Your task to perform on an android device: Search for the best way to make a resume. Image 0: 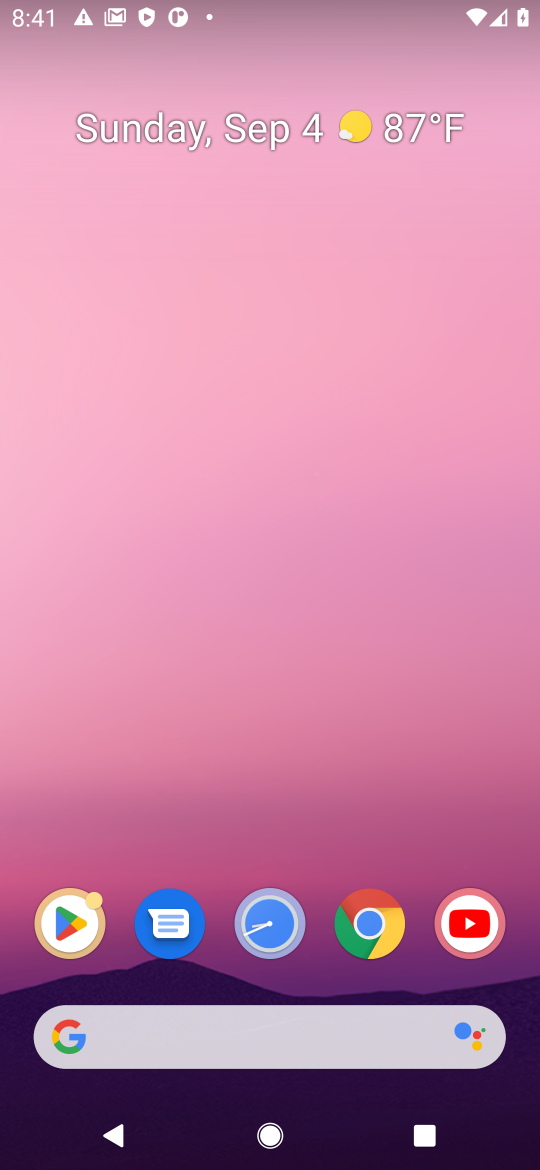
Step 0: press home button
Your task to perform on an android device: Search for the best way to make a resume. Image 1: 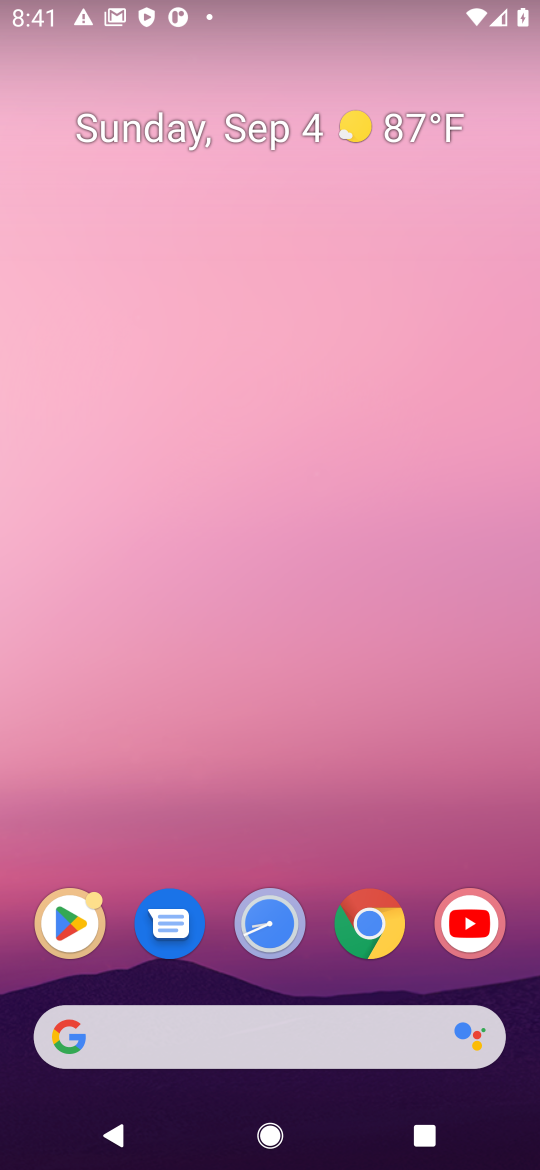
Step 1: click (388, 1025)
Your task to perform on an android device: Search for the best way to make a resume. Image 2: 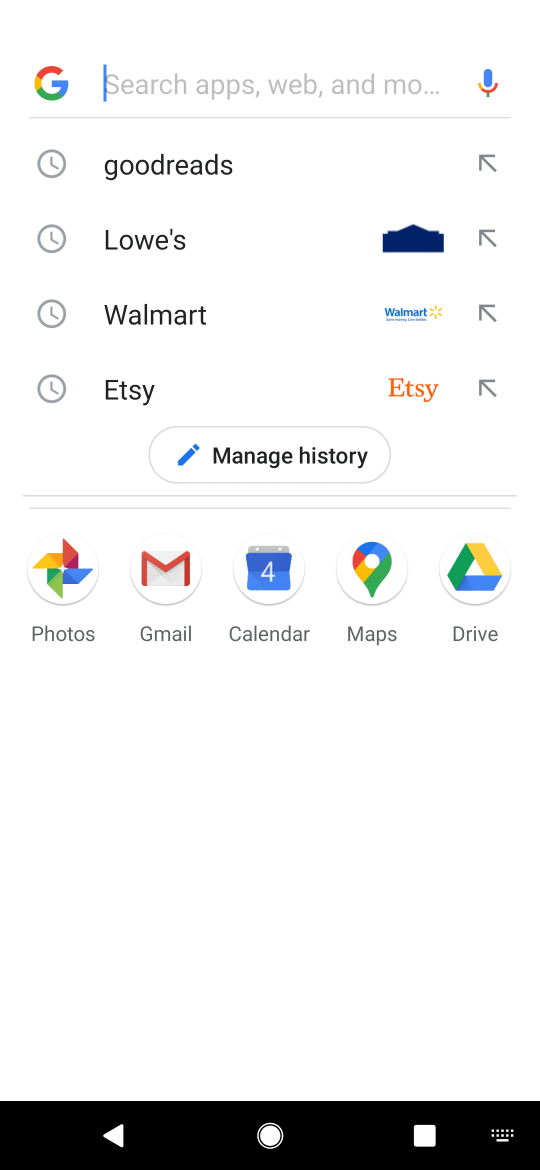
Step 2: type "best way to make a resume"
Your task to perform on an android device: Search for the best way to make a resume. Image 3: 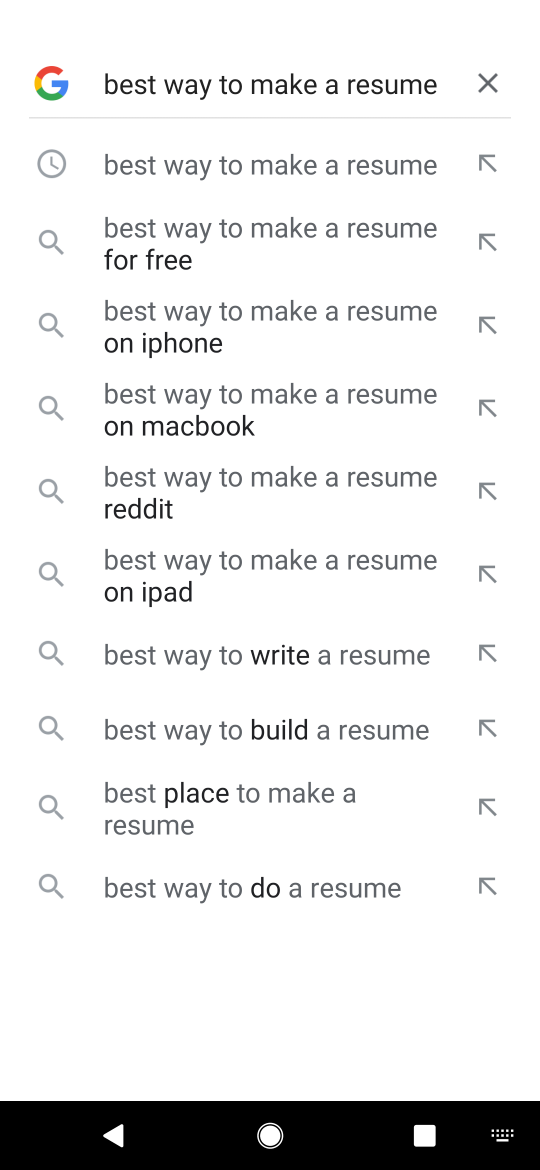
Step 3: press enter
Your task to perform on an android device: Search for the best way to make a resume. Image 4: 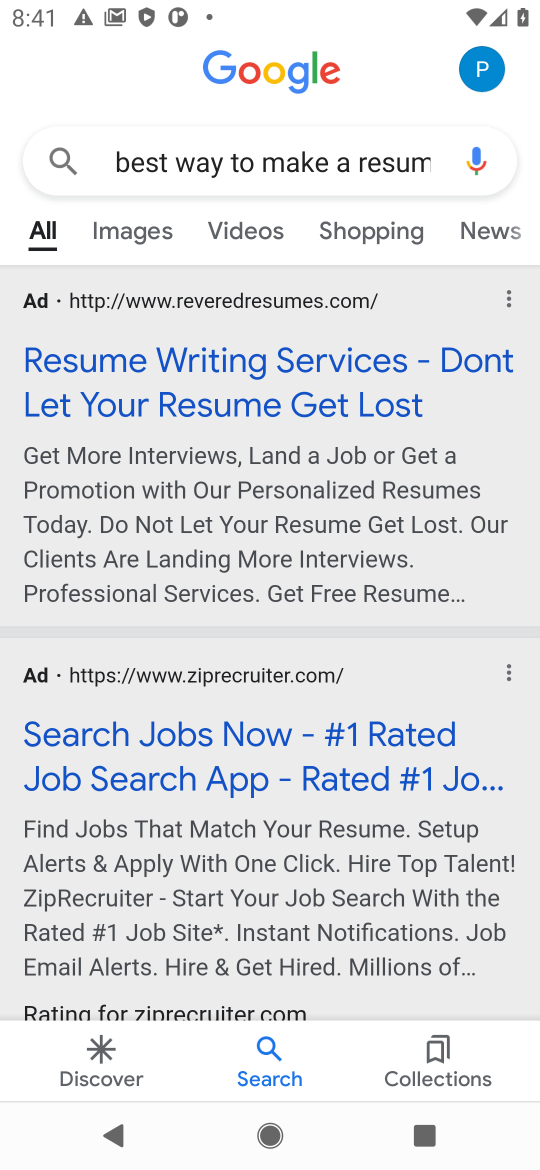
Step 4: click (277, 378)
Your task to perform on an android device: Search for the best way to make a resume. Image 5: 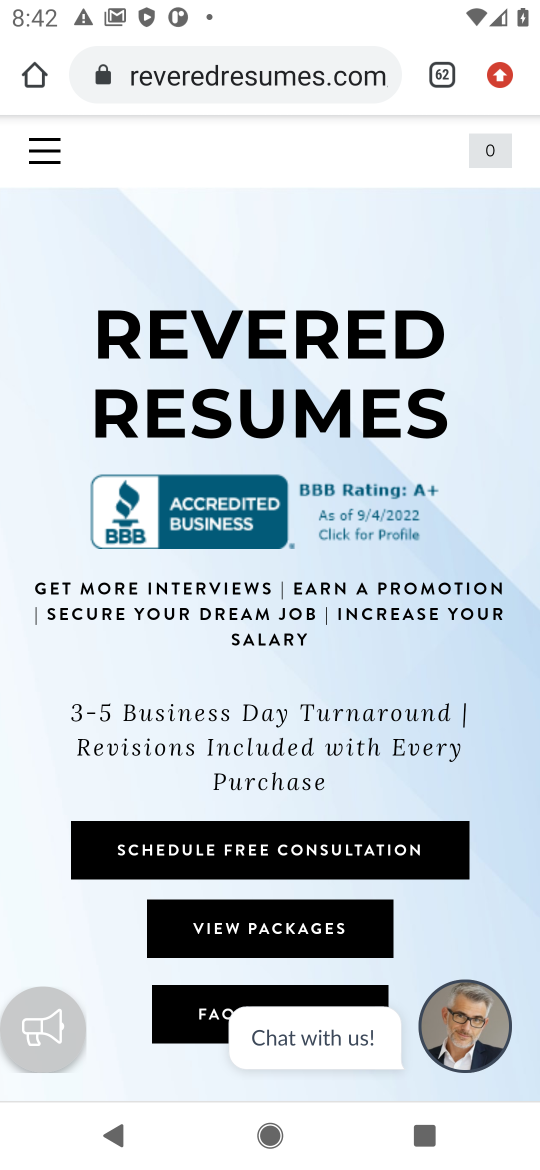
Step 5: task complete